Your task to perform on an android device: check google app version Image 0: 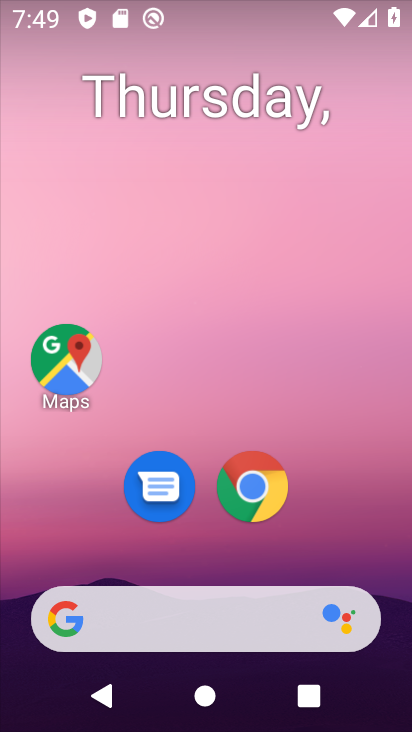
Step 0: drag from (203, 646) to (203, 74)
Your task to perform on an android device: check google app version Image 1: 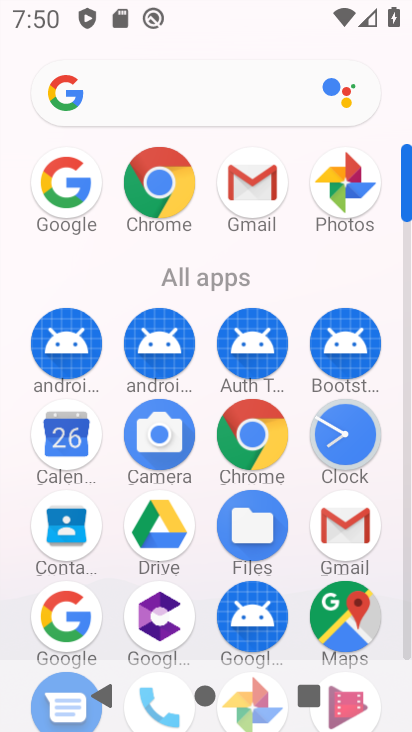
Step 1: drag from (207, 416) to (227, 141)
Your task to perform on an android device: check google app version Image 2: 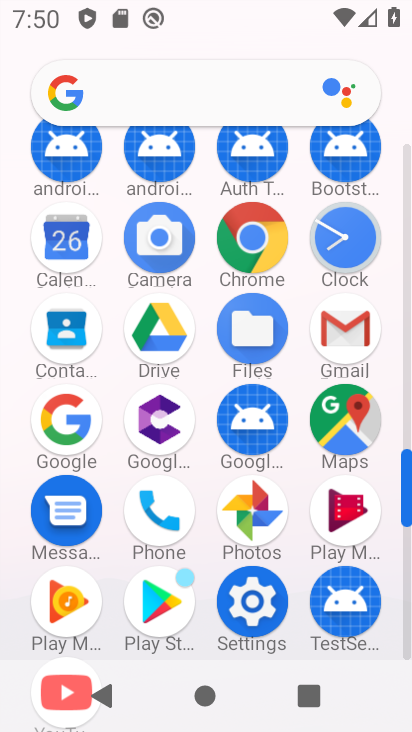
Step 2: click (75, 432)
Your task to perform on an android device: check google app version Image 3: 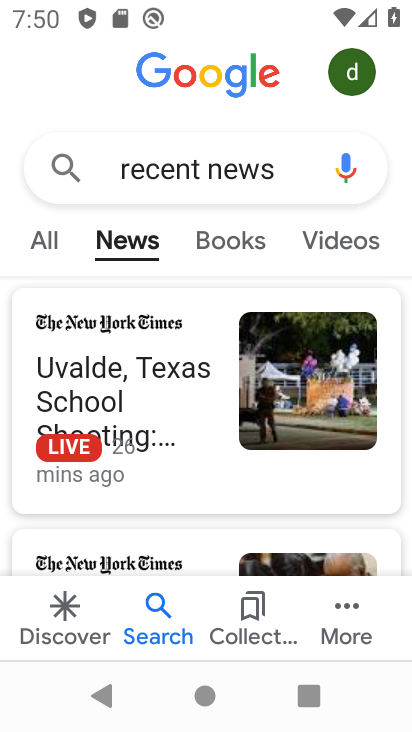
Step 3: click (366, 628)
Your task to perform on an android device: check google app version Image 4: 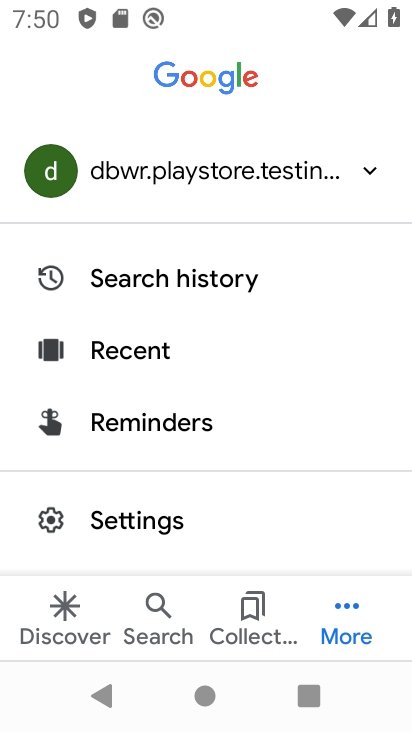
Step 4: click (178, 530)
Your task to perform on an android device: check google app version Image 5: 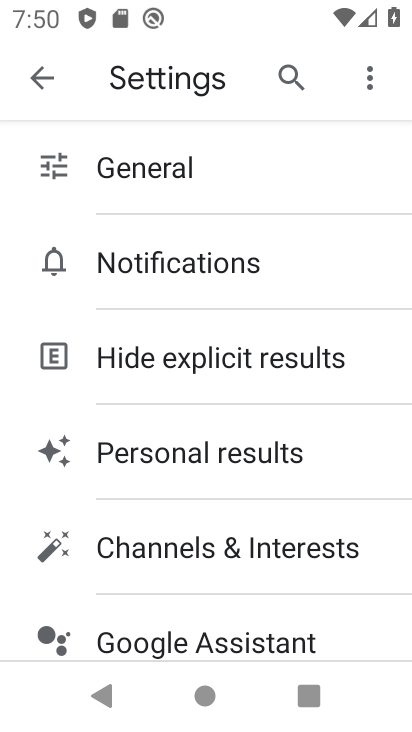
Step 5: drag from (207, 436) to (273, 16)
Your task to perform on an android device: check google app version Image 6: 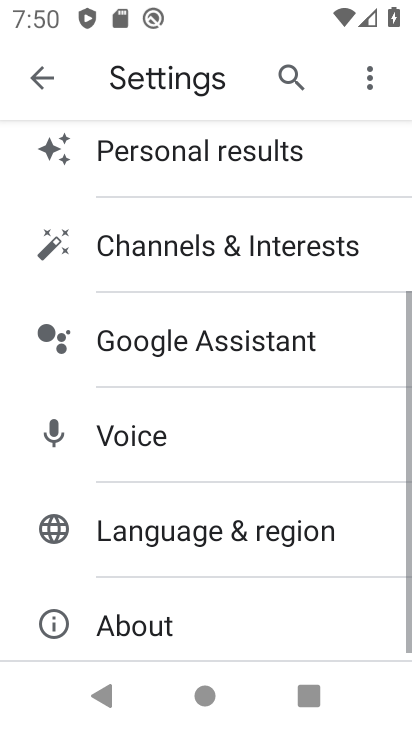
Step 6: drag from (222, 362) to (263, 36)
Your task to perform on an android device: check google app version Image 7: 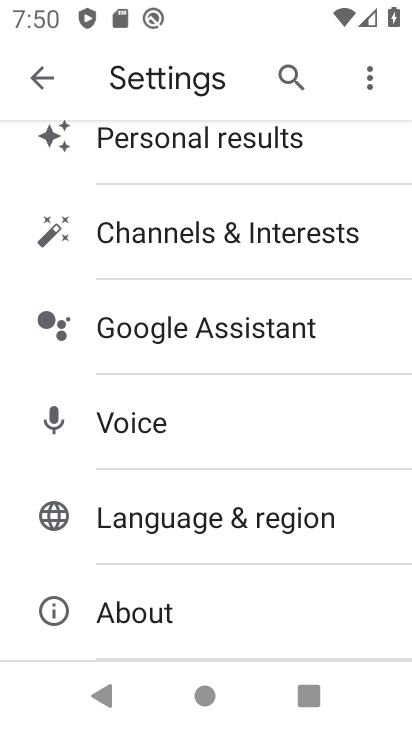
Step 7: click (197, 610)
Your task to perform on an android device: check google app version Image 8: 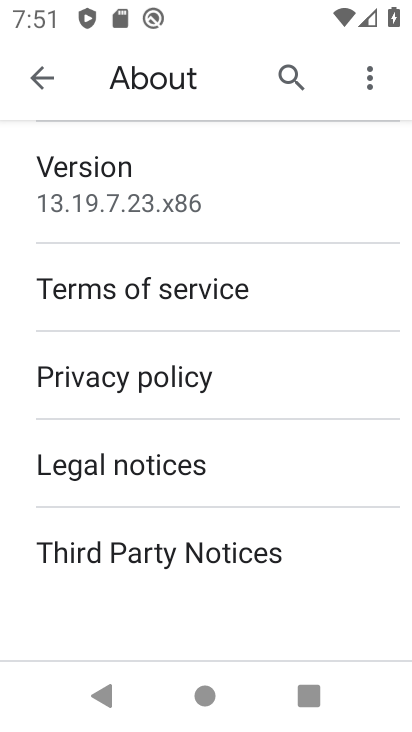
Step 8: click (196, 184)
Your task to perform on an android device: check google app version Image 9: 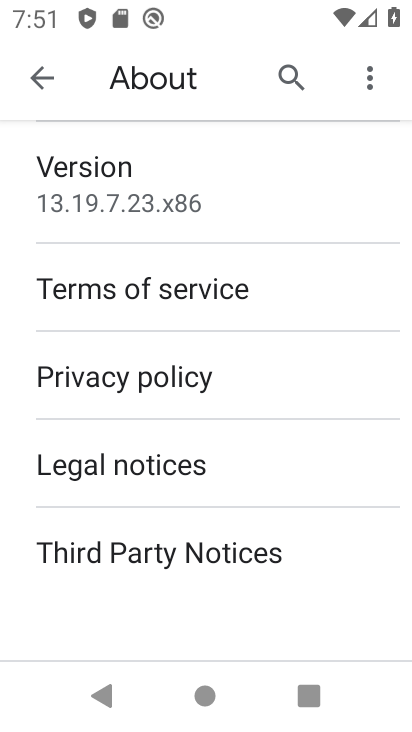
Step 9: task complete